Your task to perform on an android device: turn off translation in the chrome app Image 0: 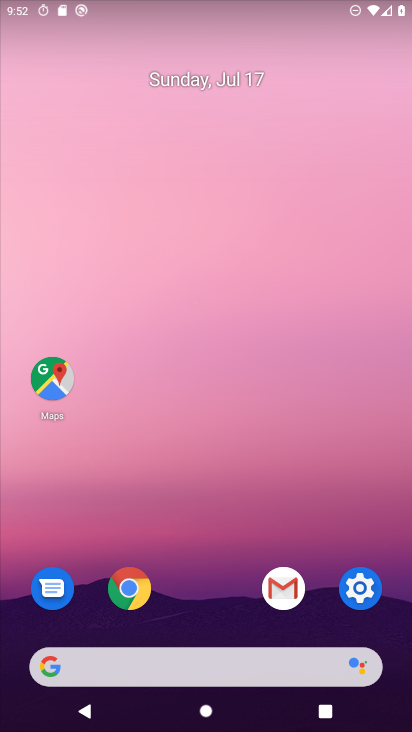
Step 0: click (140, 589)
Your task to perform on an android device: turn off translation in the chrome app Image 1: 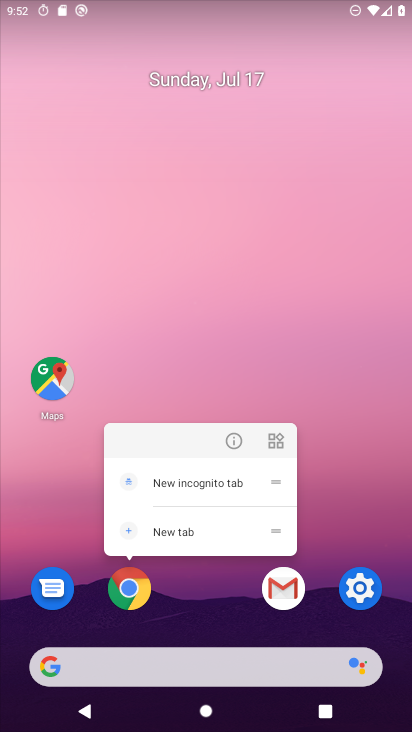
Step 1: click (130, 583)
Your task to perform on an android device: turn off translation in the chrome app Image 2: 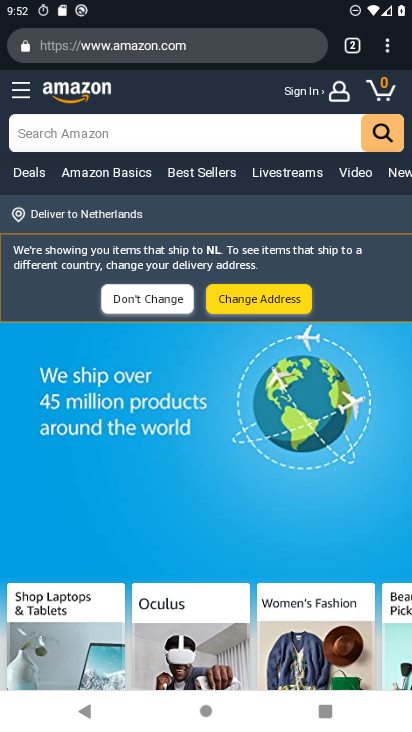
Step 2: click (383, 53)
Your task to perform on an android device: turn off translation in the chrome app Image 3: 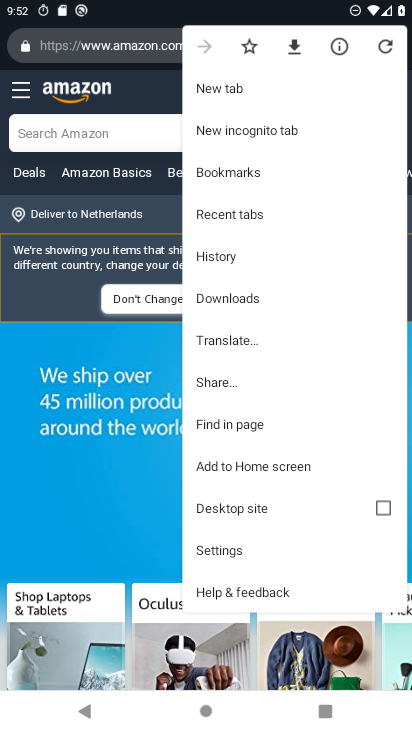
Step 3: click (239, 551)
Your task to perform on an android device: turn off translation in the chrome app Image 4: 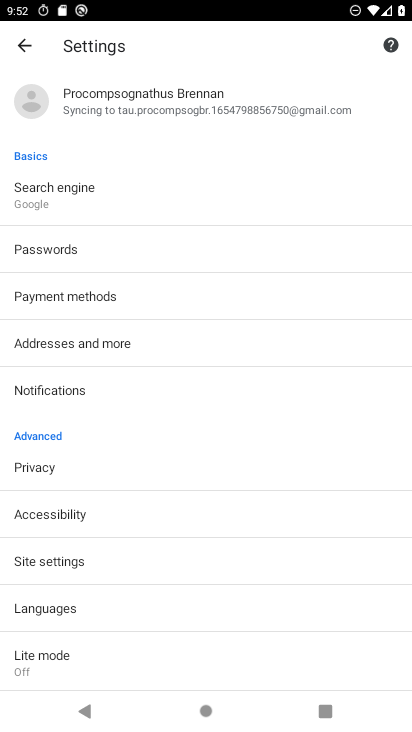
Step 4: click (50, 608)
Your task to perform on an android device: turn off translation in the chrome app Image 5: 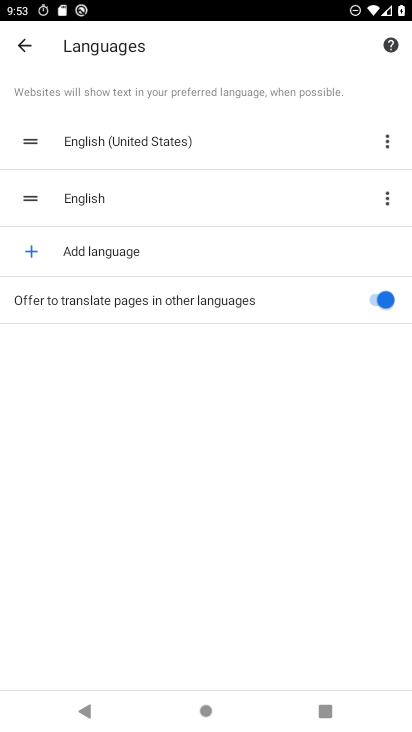
Step 5: task complete